Your task to perform on an android device: Open battery settings Image 0: 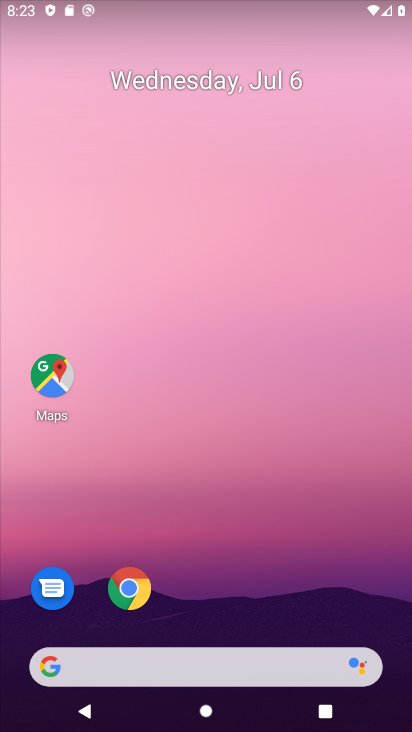
Step 0: drag from (265, 622) to (226, 69)
Your task to perform on an android device: Open battery settings Image 1: 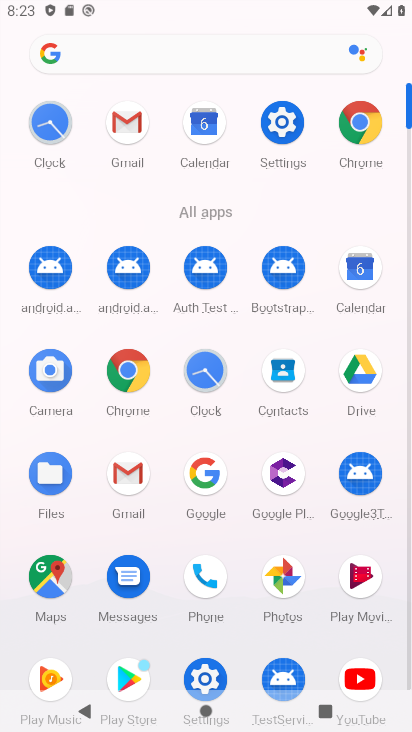
Step 1: click (285, 110)
Your task to perform on an android device: Open battery settings Image 2: 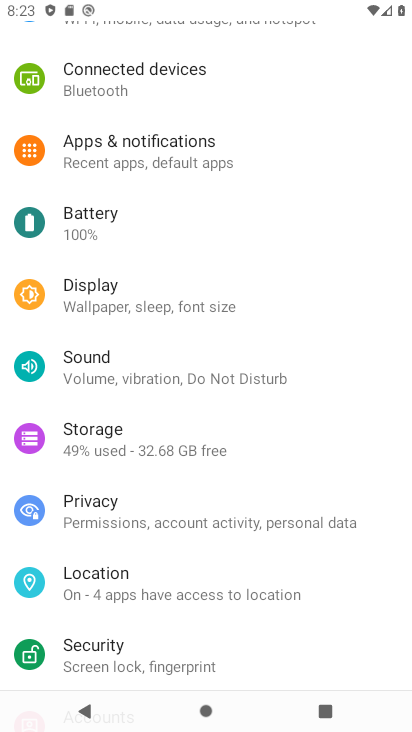
Step 2: click (238, 220)
Your task to perform on an android device: Open battery settings Image 3: 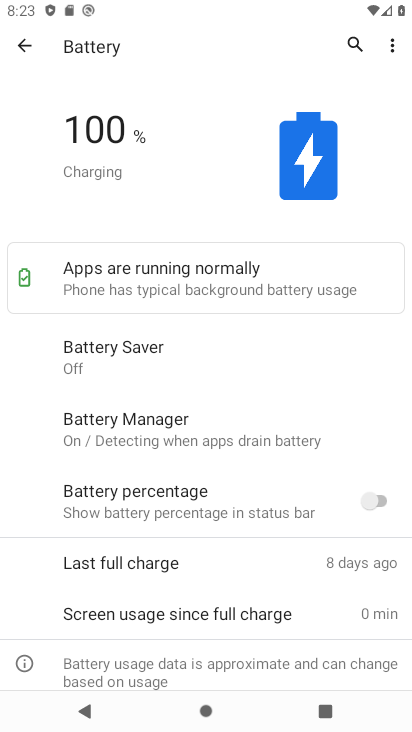
Step 3: task complete